Your task to perform on an android device: Do I have any events tomorrow? Image 0: 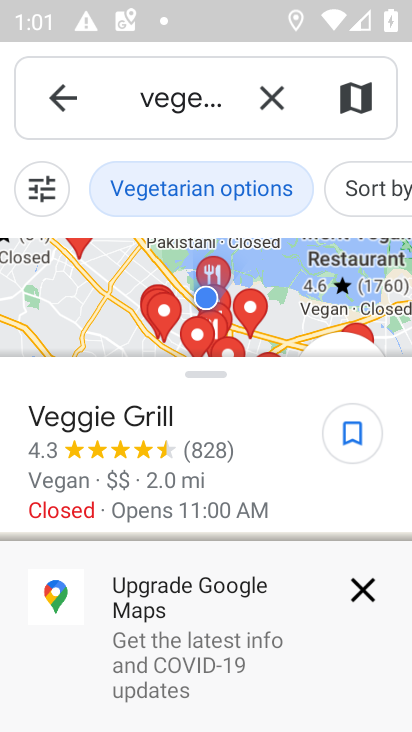
Step 0: press home button
Your task to perform on an android device: Do I have any events tomorrow? Image 1: 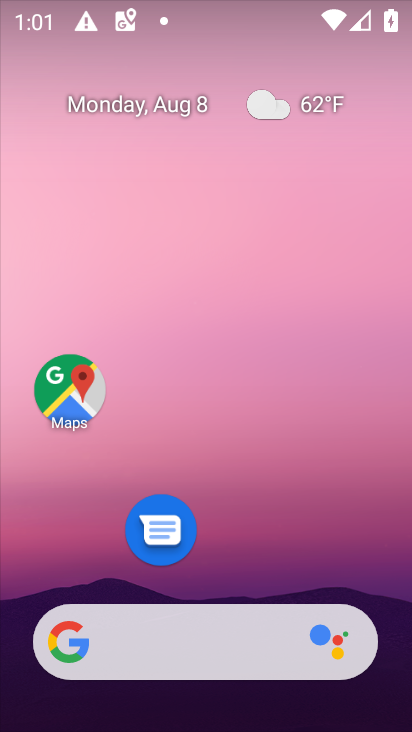
Step 1: drag from (225, 584) to (215, 109)
Your task to perform on an android device: Do I have any events tomorrow? Image 2: 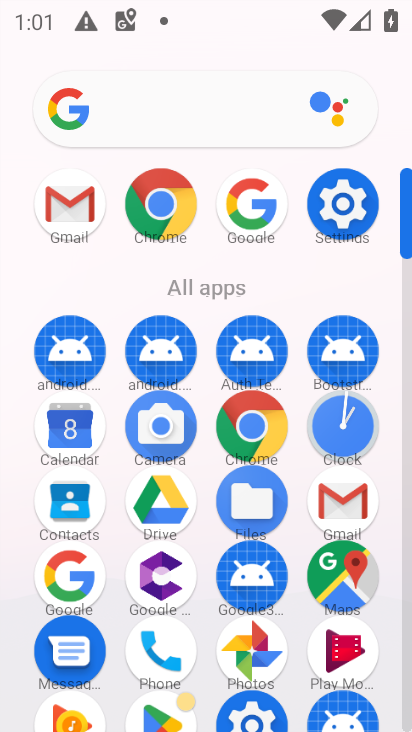
Step 2: click (64, 435)
Your task to perform on an android device: Do I have any events tomorrow? Image 3: 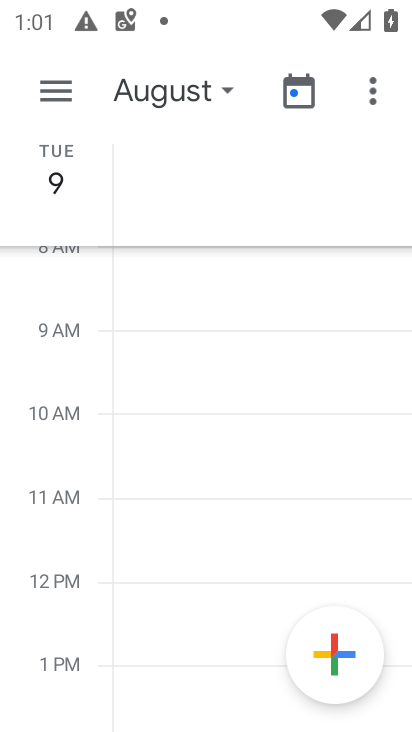
Step 3: click (52, 91)
Your task to perform on an android device: Do I have any events tomorrow? Image 4: 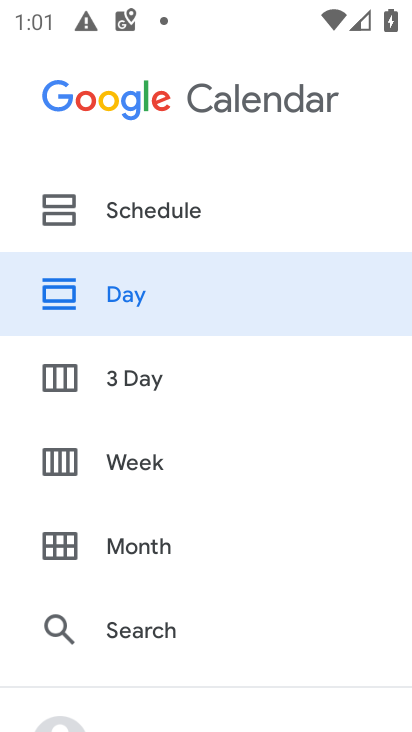
Step 4: drag from (144, 659) to (150, 374)
Your task to perform on an android device: Do I have any events tomorrow? Image 5: 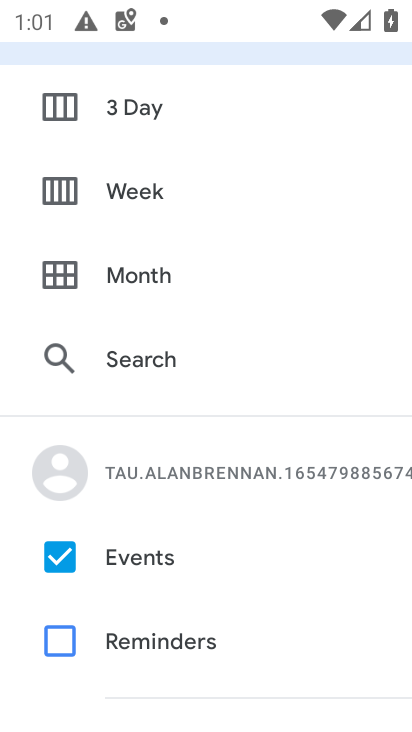
Step 5: drag from (132, 653) to (150, 454)
Your task to perform on an android device: Do I have any events tomorrow? Image 6: 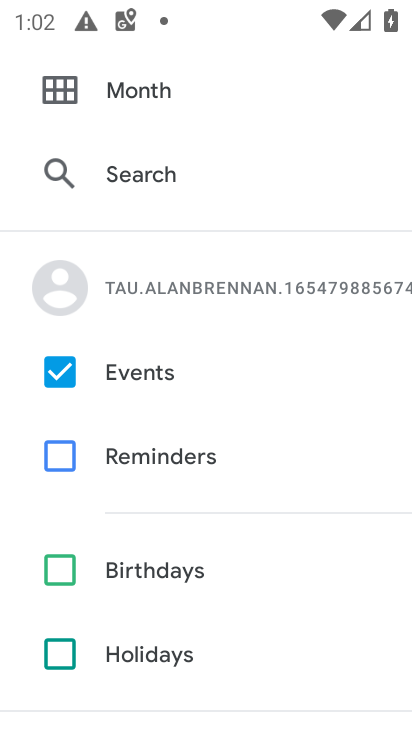
Step 6: click (195, 451)
Your task to perform on an android device: Do I have any events tomorrow? Image 7: 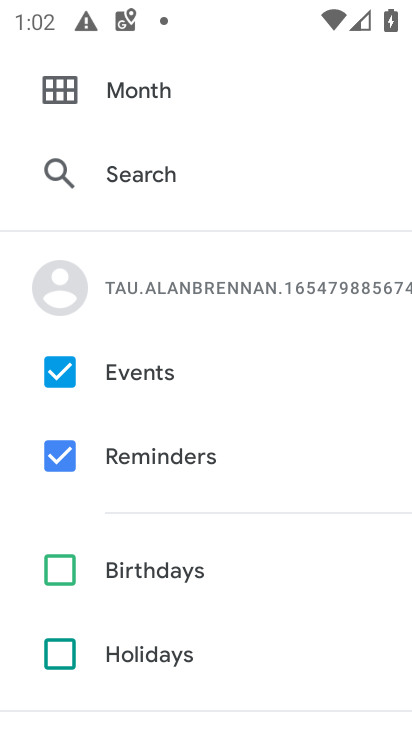
Step 7: click (58, 468)
Your task to perform on an android device: Do I have any events tomorrow? Image 8: 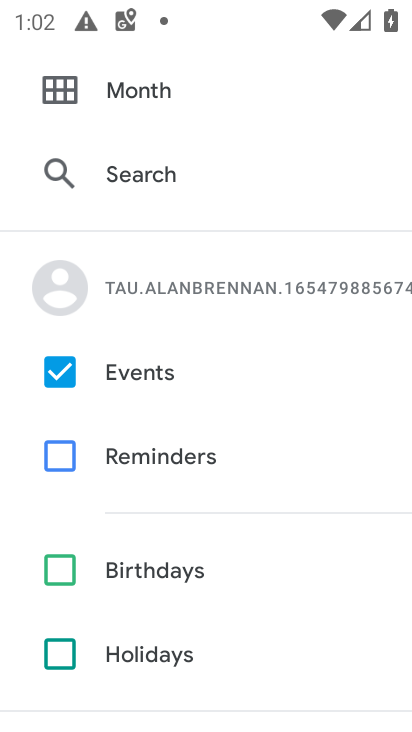
Step 8: drag from (245, 120) to (263, 561)
Your task to perform on an android device: Do I have any events tomorrow? Image 9: 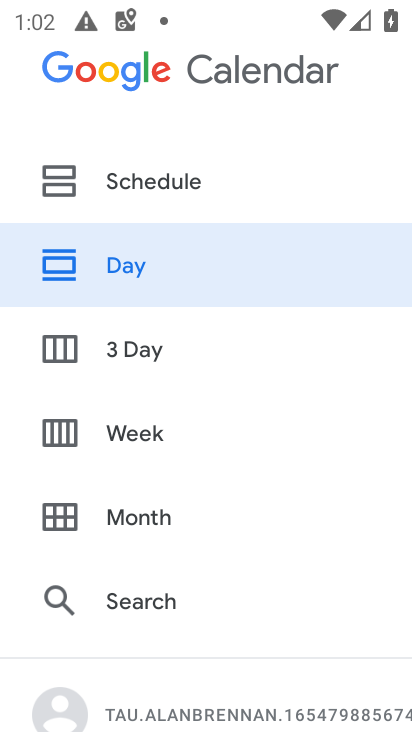
Step 9: click (178, 276)
Your task to perform on an android device: Do I have any events tomorrow? Image 10: 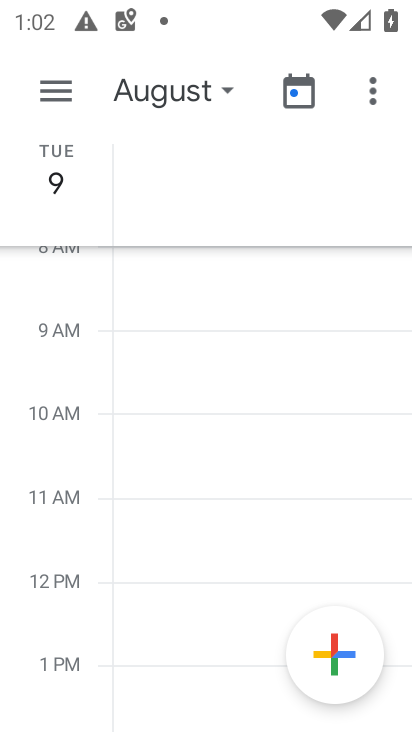
Step 10: task complete